Your task to perform on an android device: visit the assistant section in the google photos Image 0: 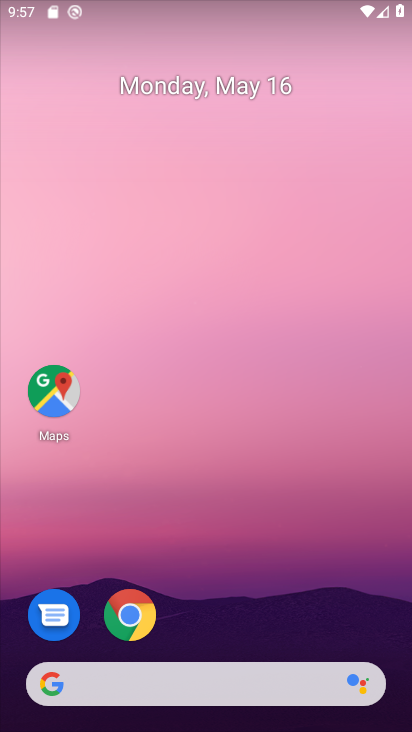
Step 0: drag from (232, 588) to (183, 66)
Your task to perform on an android device: visit the assistant section in the google photos Image 1: 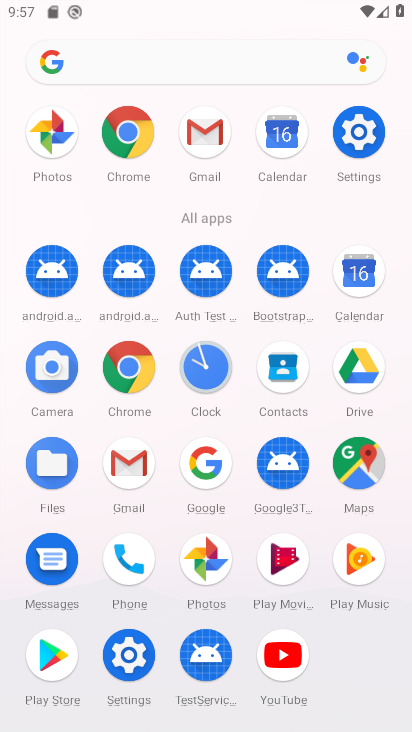
Step 1: click (203, 558)
Your task to perform on an android device: visit the assistant section in the google photos Image 2: 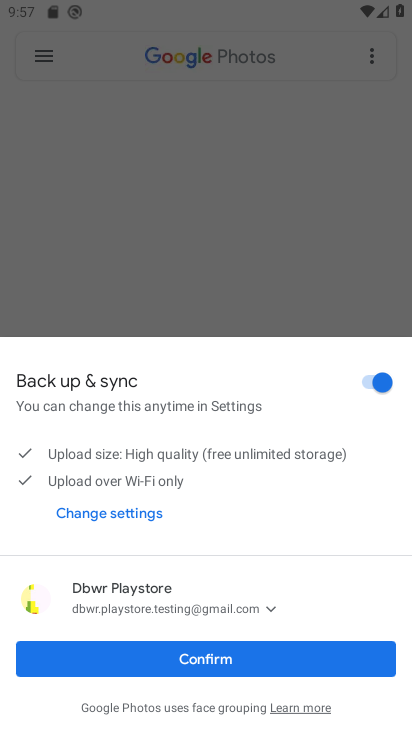
Step 2: click (208, 655)
Your task to perform on an android device: visit the assistant section in the google photos Image 3: 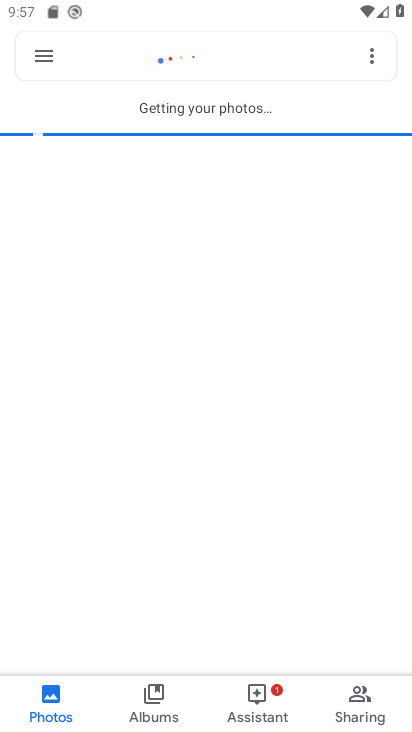
Step 3: click (250, 695)
Your task to perform on an android device: visit the assistant section in the google photos Image 4: 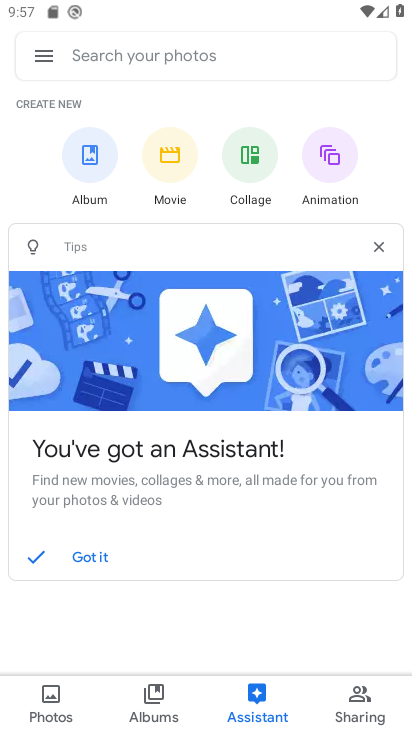
Step 4: task complete